Your task to perform on an android device: Open Reddit.com Image 0: 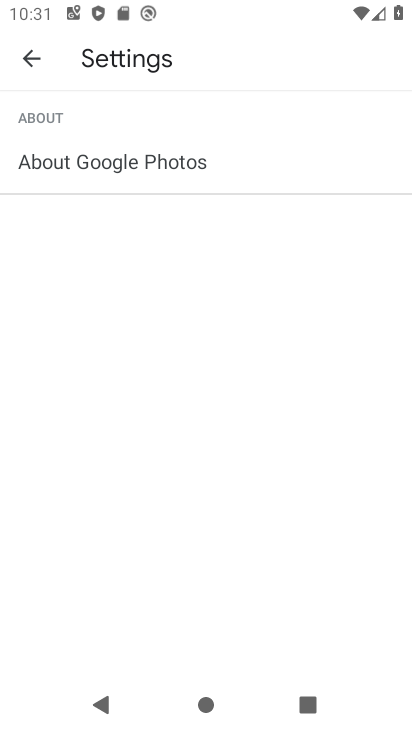
Step 0: press home button
Your task to perform on an android device: Open Reddit.com Image 1: 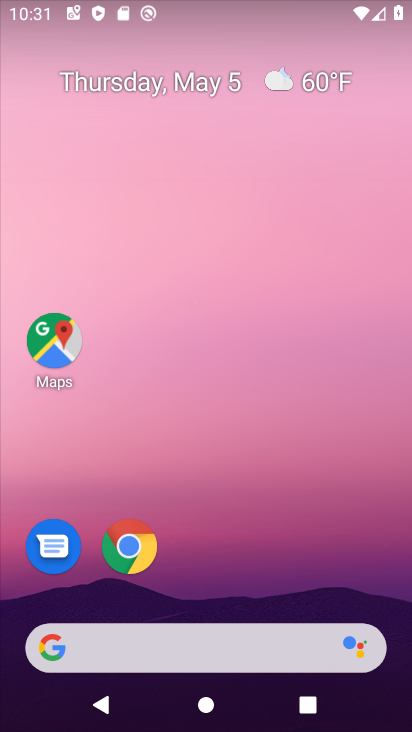
Step 1: click (123, 550)
Your task to perform on an android device: Open Reddit.com Image 2: 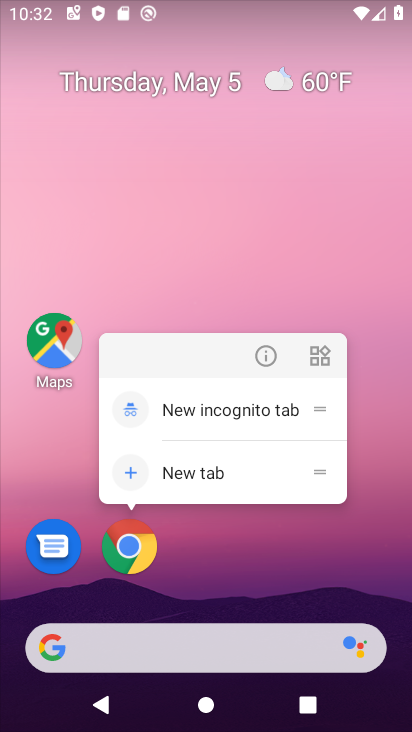
Step 2: click (113, 547)
Your task to perform on an android device: Open Reddit.com Image 3: 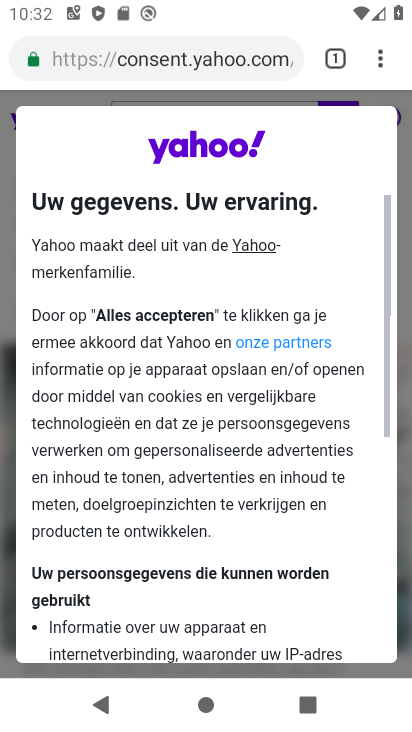
Step 3: click (232, 66)
Your task to perform on an android device: Open Reddit.com Image 4: 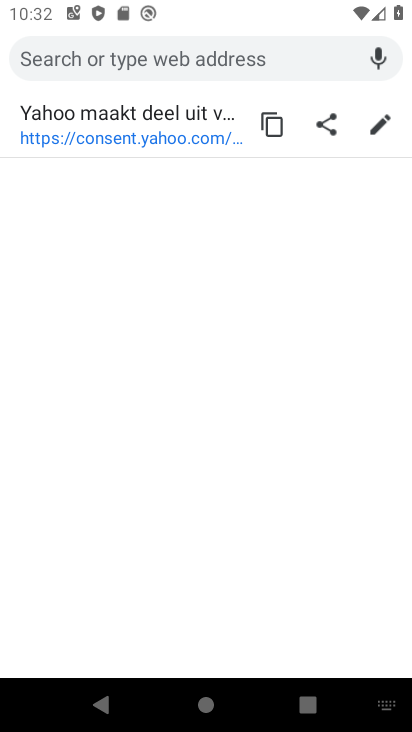
Step 4: type "Reddit.com"
Your task to perform on an android device: Open Reddit.com Image 5: 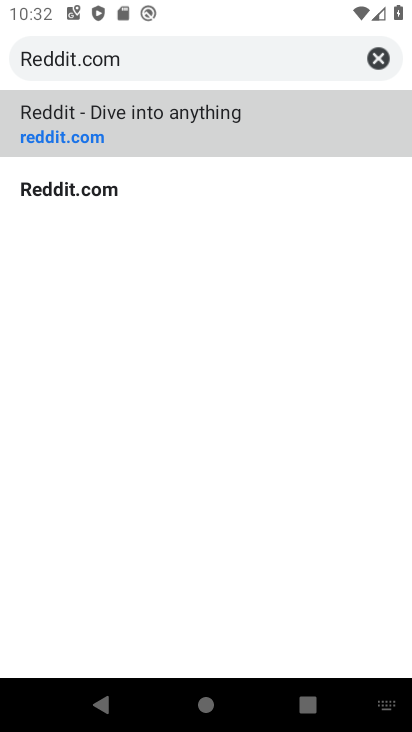
Step 5: click (102, 126)
Your task to perform on an android device: Open Reddit.com Image 6: 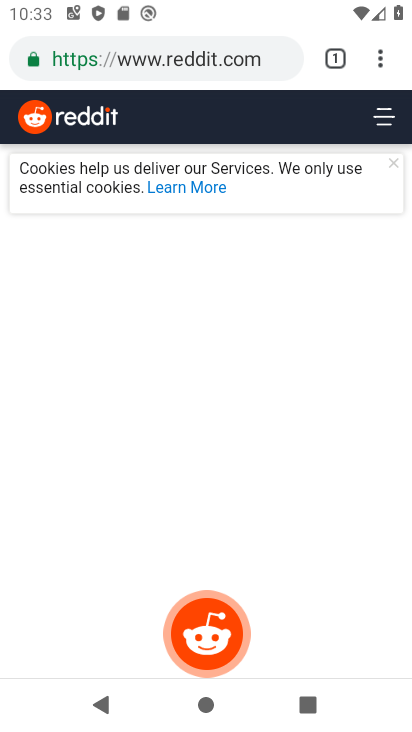
Step 6: task complete